Your task to perform on an android device: Open Yahoo.com Image 0: 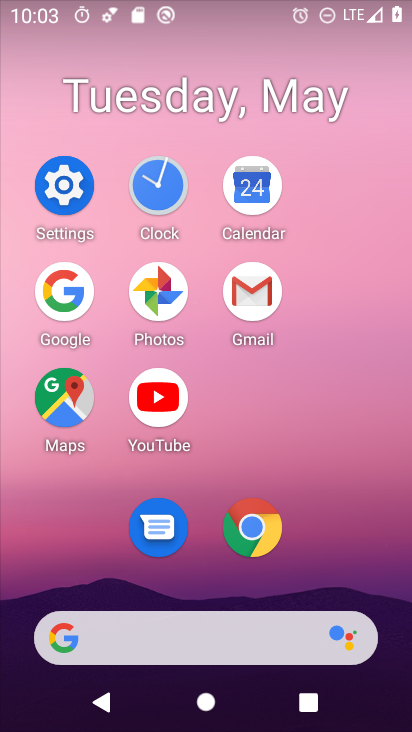
Step 0: click (260, 523)
Your task to perform on an android device: Open Yahoo.com Image 1: 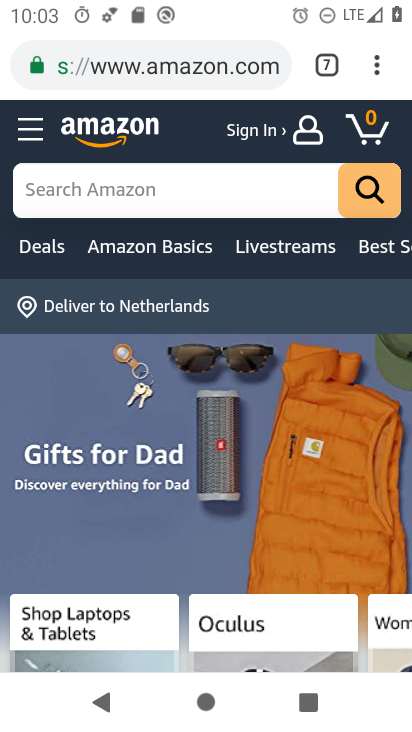
Step 1: click (319, 67)
Your task to perform on an android device: Open Yahoo.com Image 2: 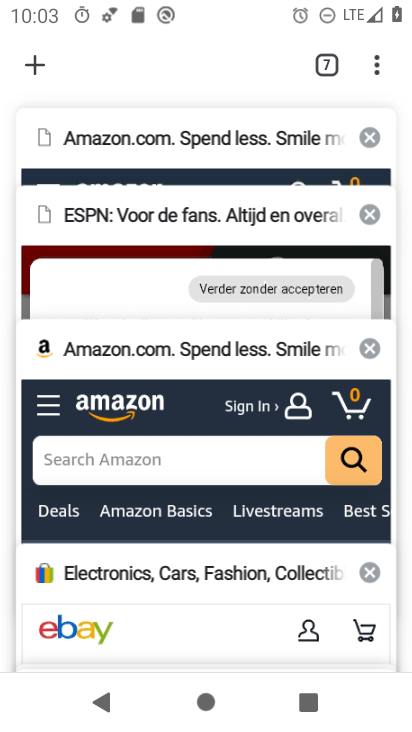
Step 2: click (50, 62)
Your task to perform on an android device: Open Yahoo.com Image 3: 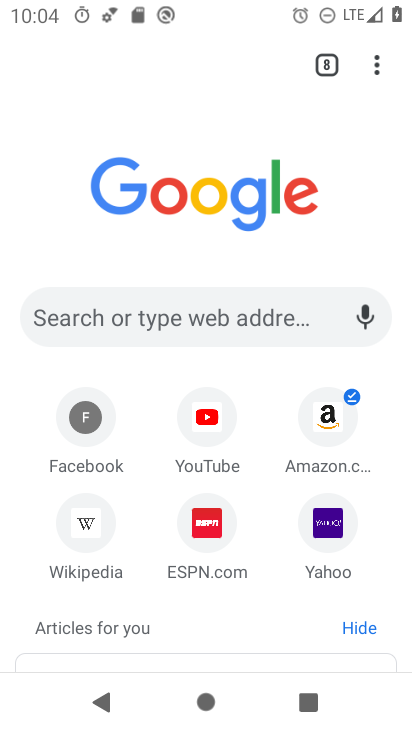
Step 3: click (309, 533)
Your task to perform on an android device: Open Yahoo.com Image 4: 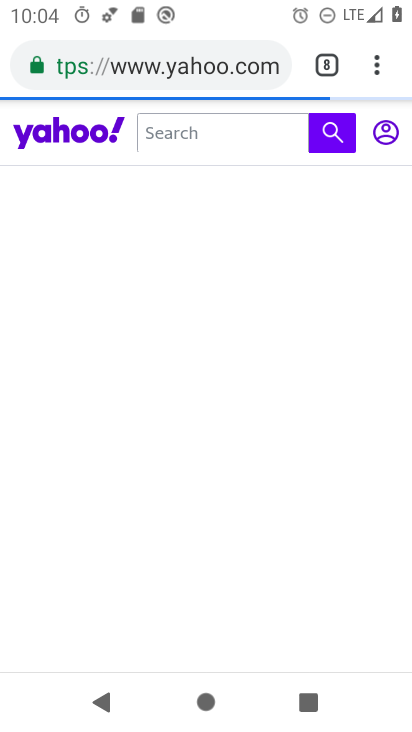
Step 4: task complete